Your task to perform on an android device: What is the recent news? Image 0: 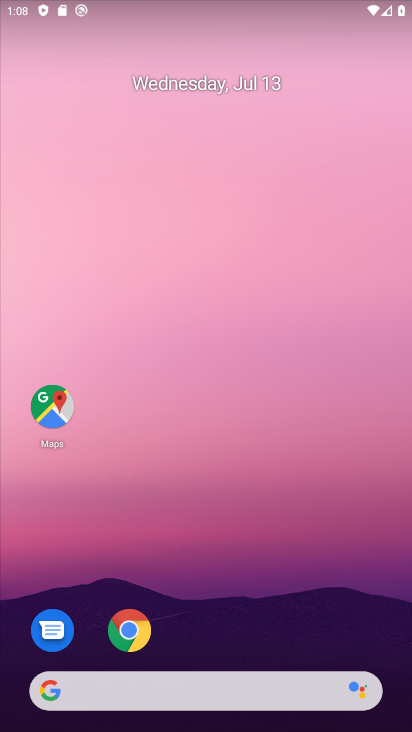
Step 0: drag from (3, 241) to (409, 247)
Your task to perform on an android device: What is the recent news? Image 1: 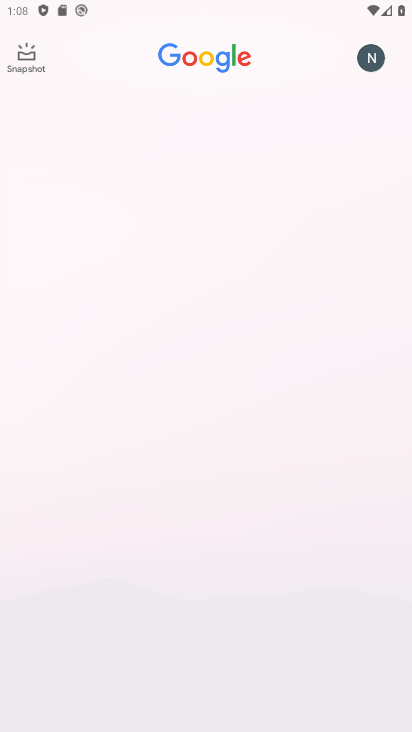
Step 1: task complete